Your task to perform on an android device: empty trash in google photos Image 0: 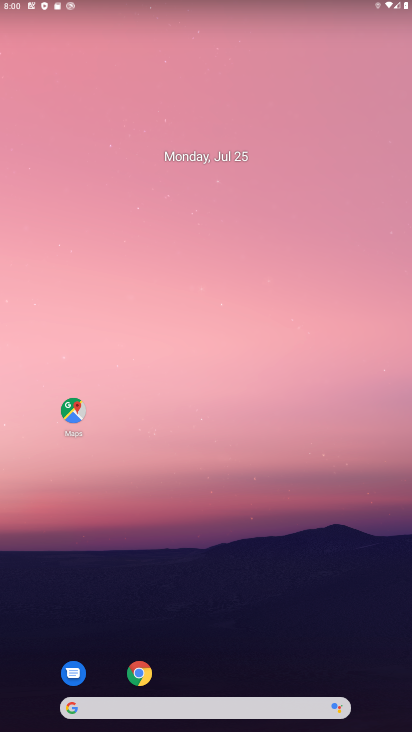
Step 0: drag from (287, 699) to (279, 433)
Your task to perform on an android device: empty trash in google photos Image 1: 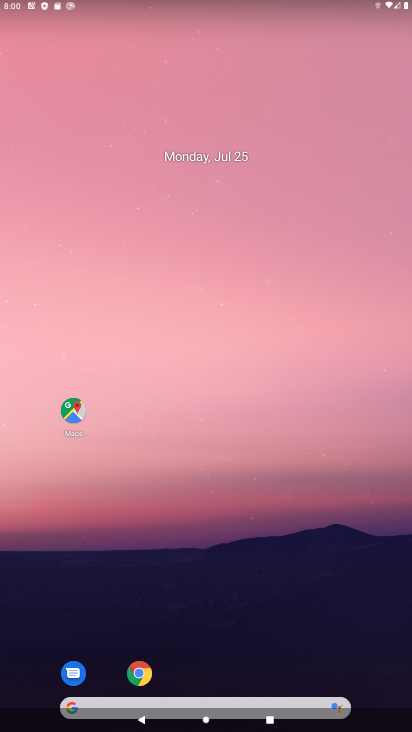
Step 1: drag from (250, 651) to (237, 208)
Your task to perform on an android device: empty trash in google photos Image 2: 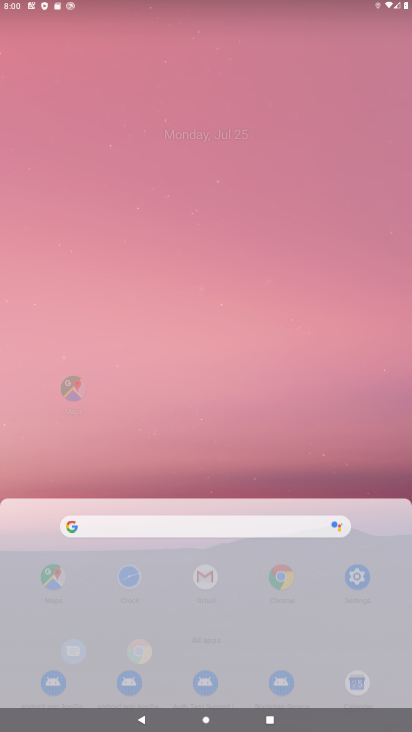
Step 2: drag from (231, 618) to (191, 193)
Your task to perform on an android device: empty trash in google photos Image 3: 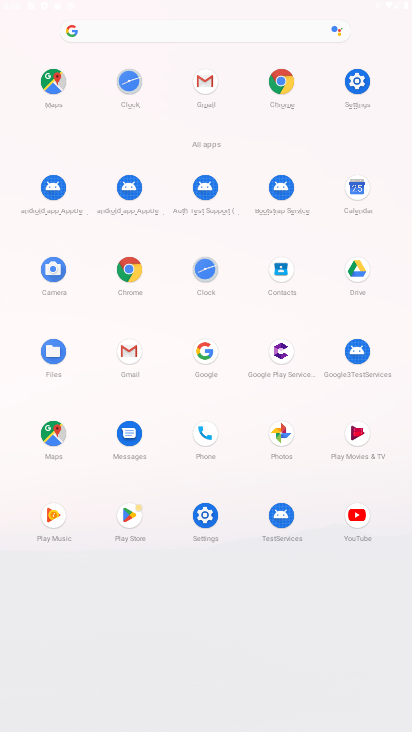
Step 3: drag from (232, 498) to (229, 134)
Your task to perform on an android device: empty trash in google photos Image 4: 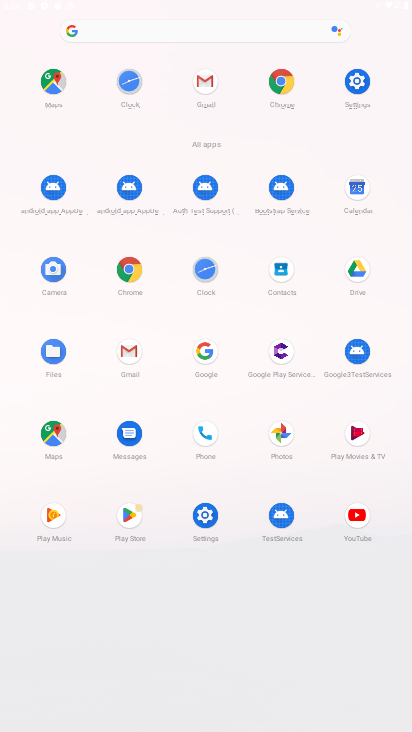
Step 4: click (282, 437)
Your task to perform on an android device: empty trash in google photos Image 5: 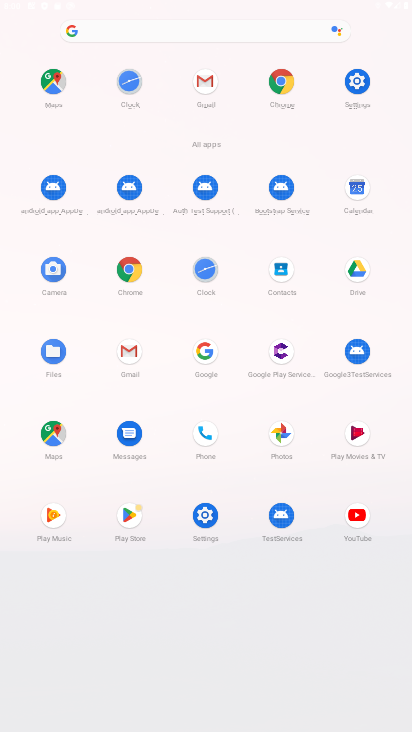
Step 5: click (282, 437)
Your task to perform on an android device: empty trash in google photos Image 6: 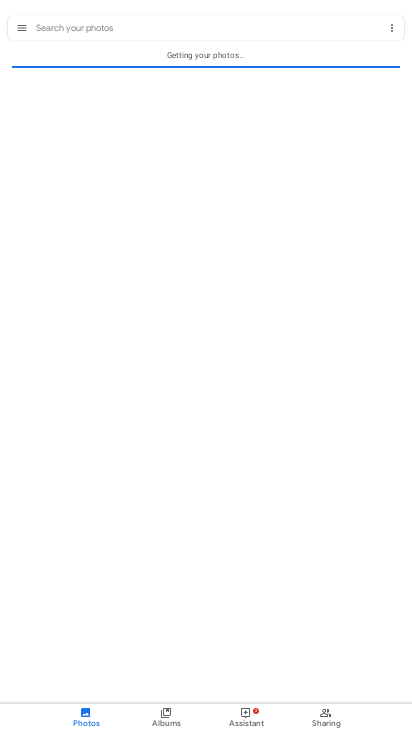
Step 6: click (15, 22)
Your task to perform on an android device: empty trash in google photos Image 7: 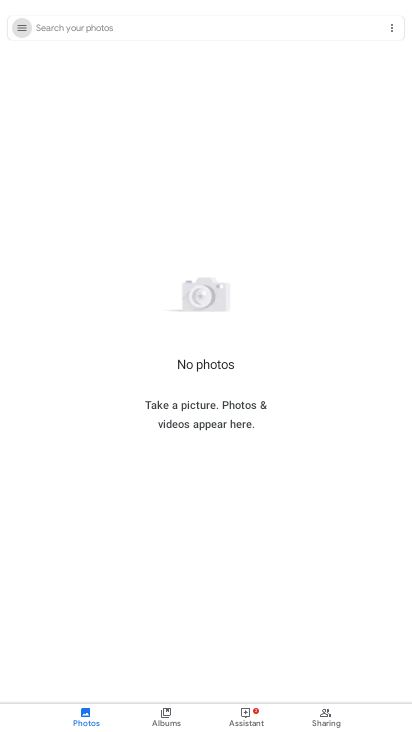
Step 7: click (16, 22)
Your task to perform on an android device: empty trash in google photos Image 8: 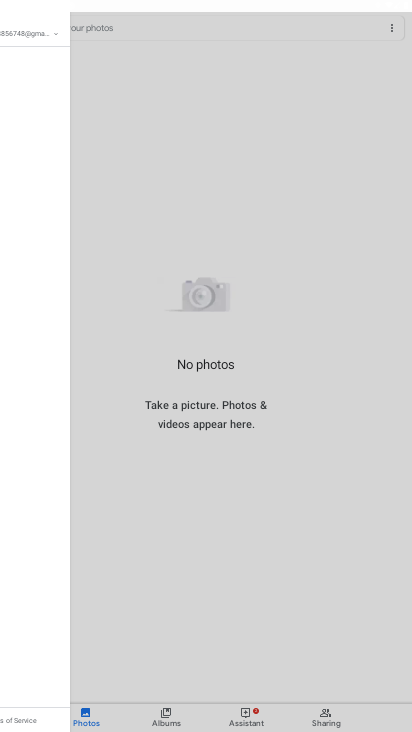
Step 8: click (19, 21)
Your task to perform on an android device: empty trash in google photos Image 9: 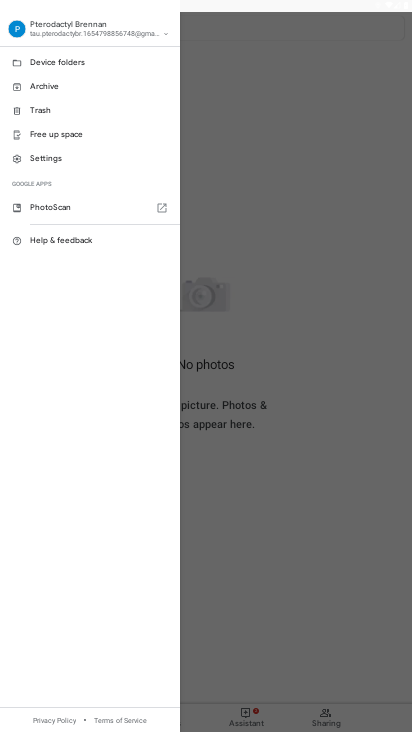
Step 9: click (38, 110)
Your task to perform on an android device: empty trash in google photos Image 10: 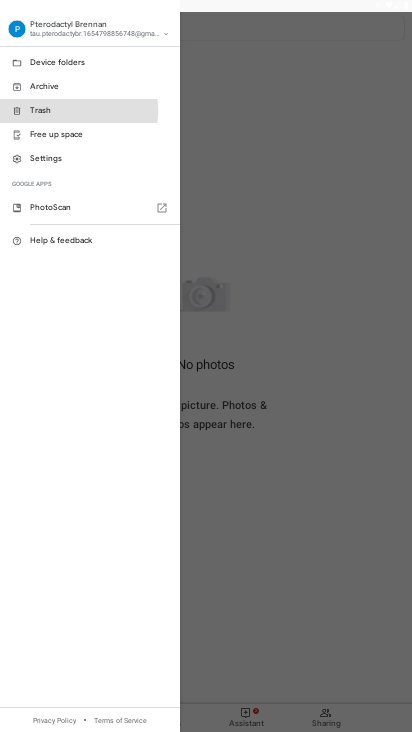
Step 10: click (41, 101)
Your task to perform on an android device: empty trash in google photos Image 11: 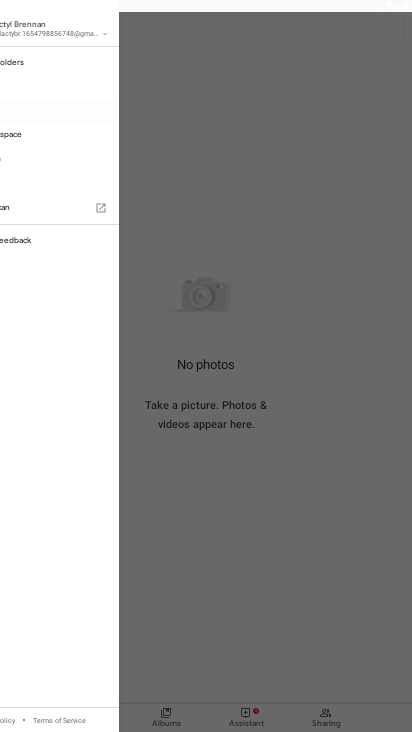
Step 11: click (45, 99)
Your task to perform on an android device: empty trash in google photos Image 12: 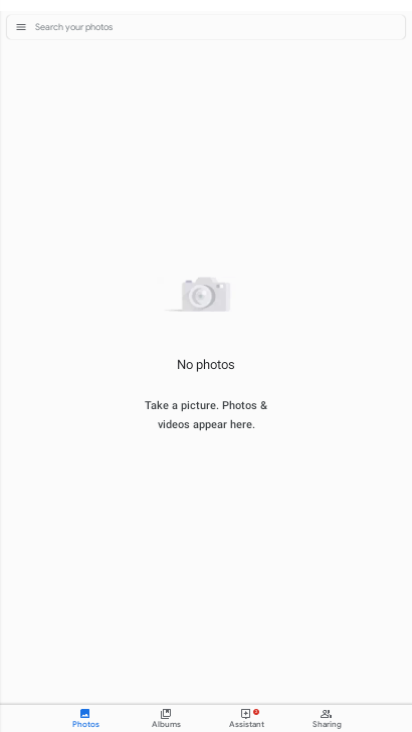
Step 12: click (45, 99)
Your task to perform on an android device: empty trash in google photos Image 13: 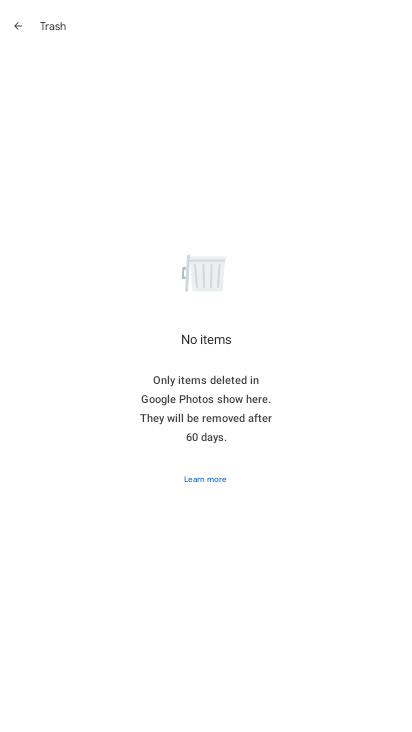
Step 13: task complete